Your task to perform on an android device: Search for pizza restaurants on Maps Image 0: 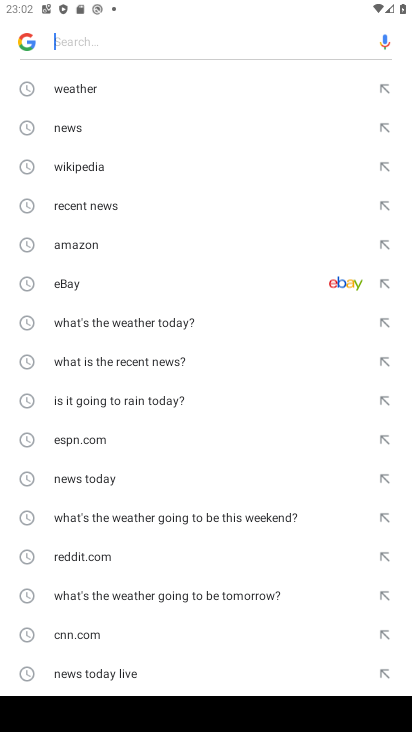
Step 0: press home button
Your task to perform on an android device: Search for pizza restaurants on Maps Image 1: 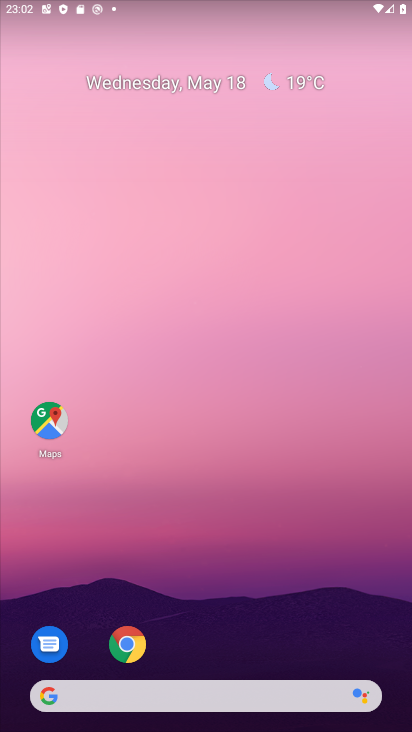
Step 1: click (298, 577)
Your task to perform on an android device: Search for pizza restaurants on Maps Image 2: 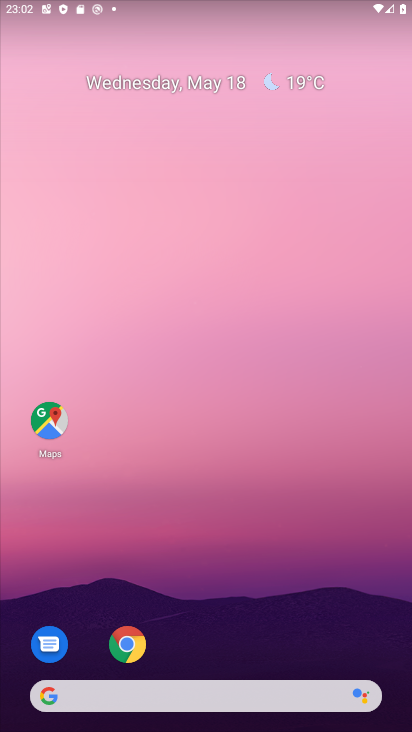
Step 2: click (66, 425)
Your task to perform on an android device: Search for pizza restaurants on Maps Image 3: 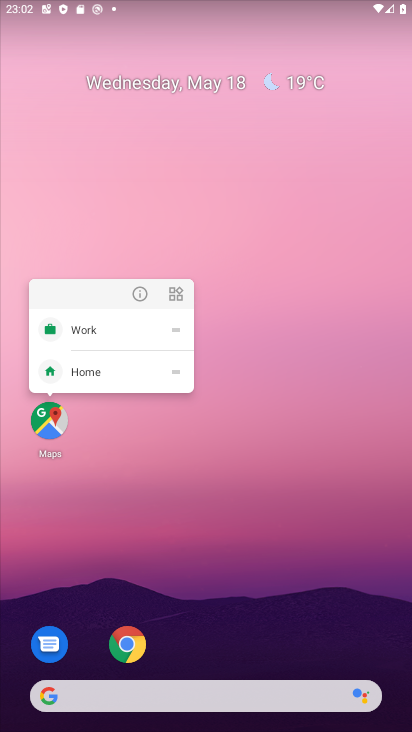
Step 3: click (45, 427)
Your task to perform on an android device: Search for pizza restaurants on Maps Image 4: 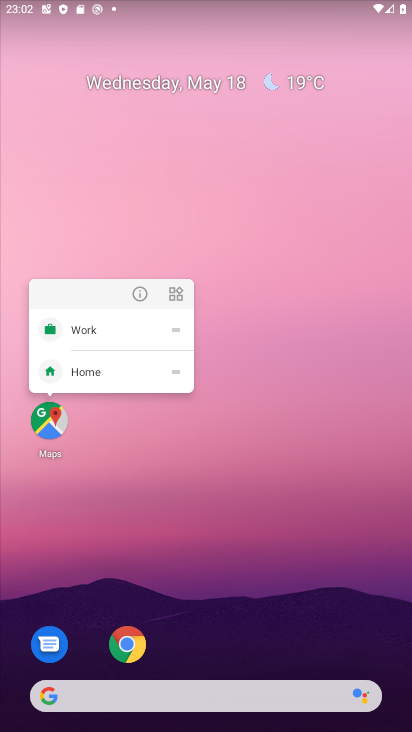
Step 4: click (54, 418)
Your task to perform on an android device: Search for pizza restaurants on Maps Image 5: 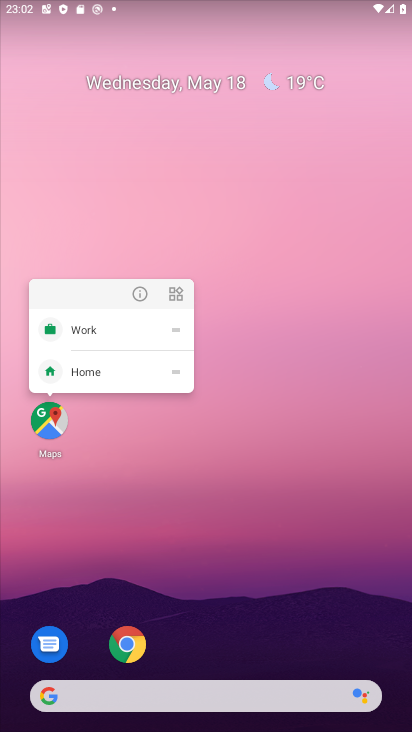
Step 5: drag from (346, 594) to (305, 188)
Your task to perform on an android device: Search for pizza restaurants on Maps Image 6: 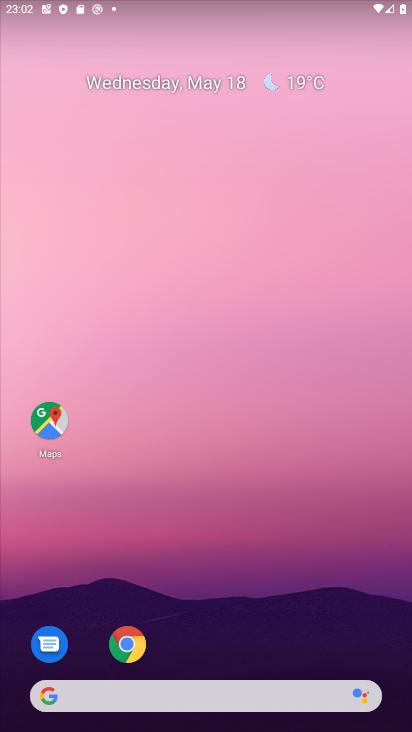
Step 6: drag from (204, 599) to (235, 240)
Your task to perform on an android device: Search for pizza restaurants on Maps Image 7: 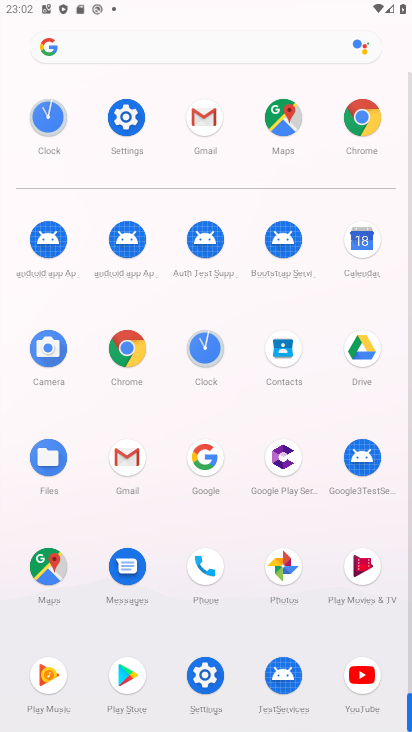
Step 7: click (47, 573)
Your task to perform on an android device: Search for pizza restaurants on Maps Image 8: 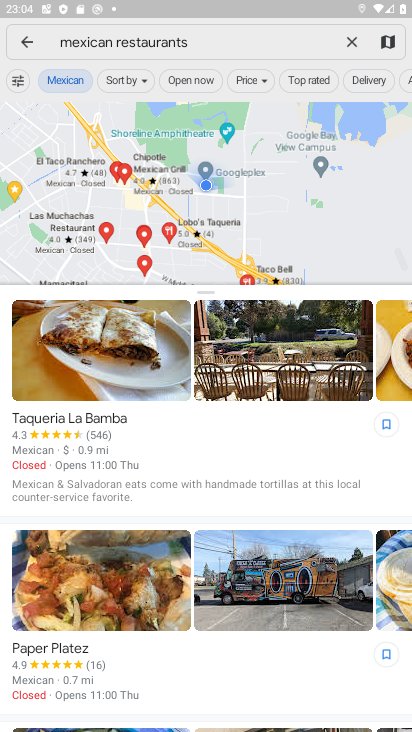
Step 8: click (136, 42)
Your task to perform on an android device: Search for pizza restaurants on Maps Image 9: 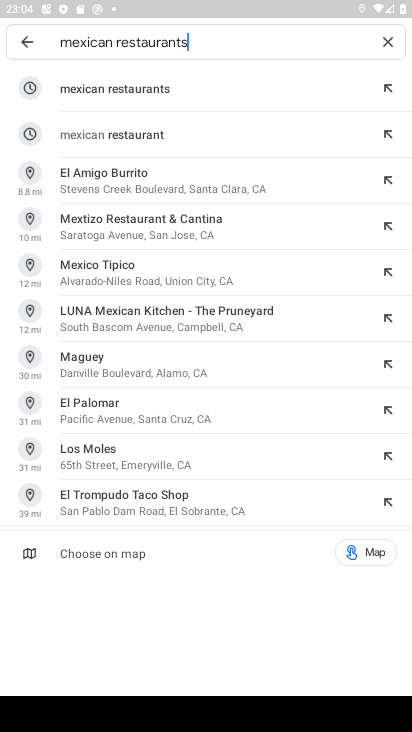
Step 9: click (384, 38)
Your task to perform on an android device: Search for pizza restaurants on Maps Image 10: 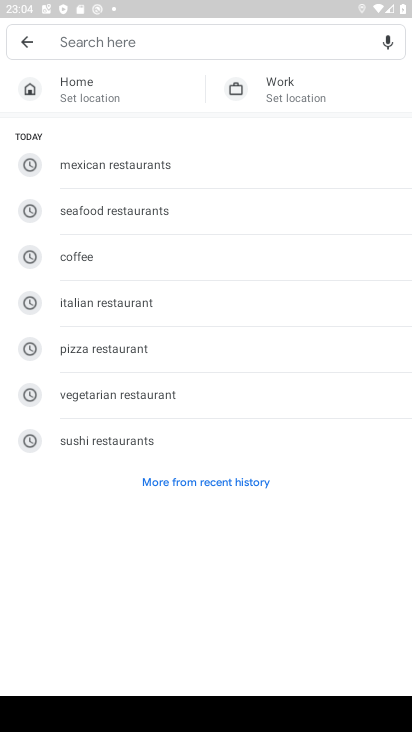
Step 10: type "pizza restaurants"
Your task to perform on an android device: Search for pizza restaurants on Maps Image 11: 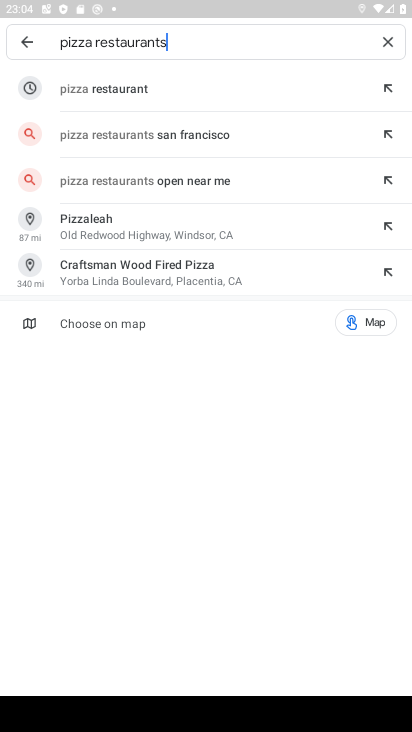
Step 11: press enter
Your task to perform on an android device: Search for pizza restaurants on Maps Image 12: 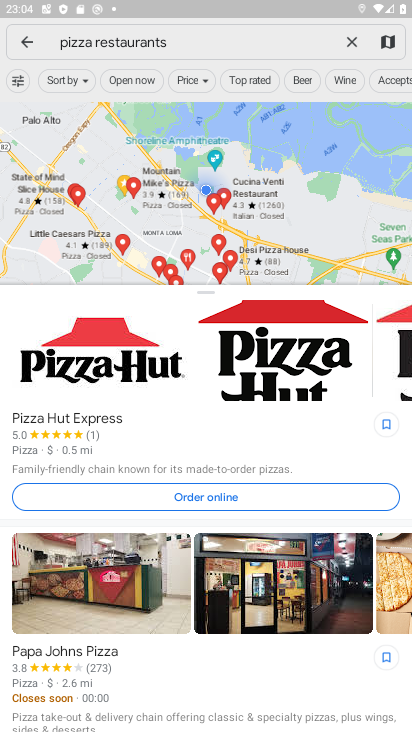
Step 12: task complete